Your task to perform on an android device: Open the settings Image 0: 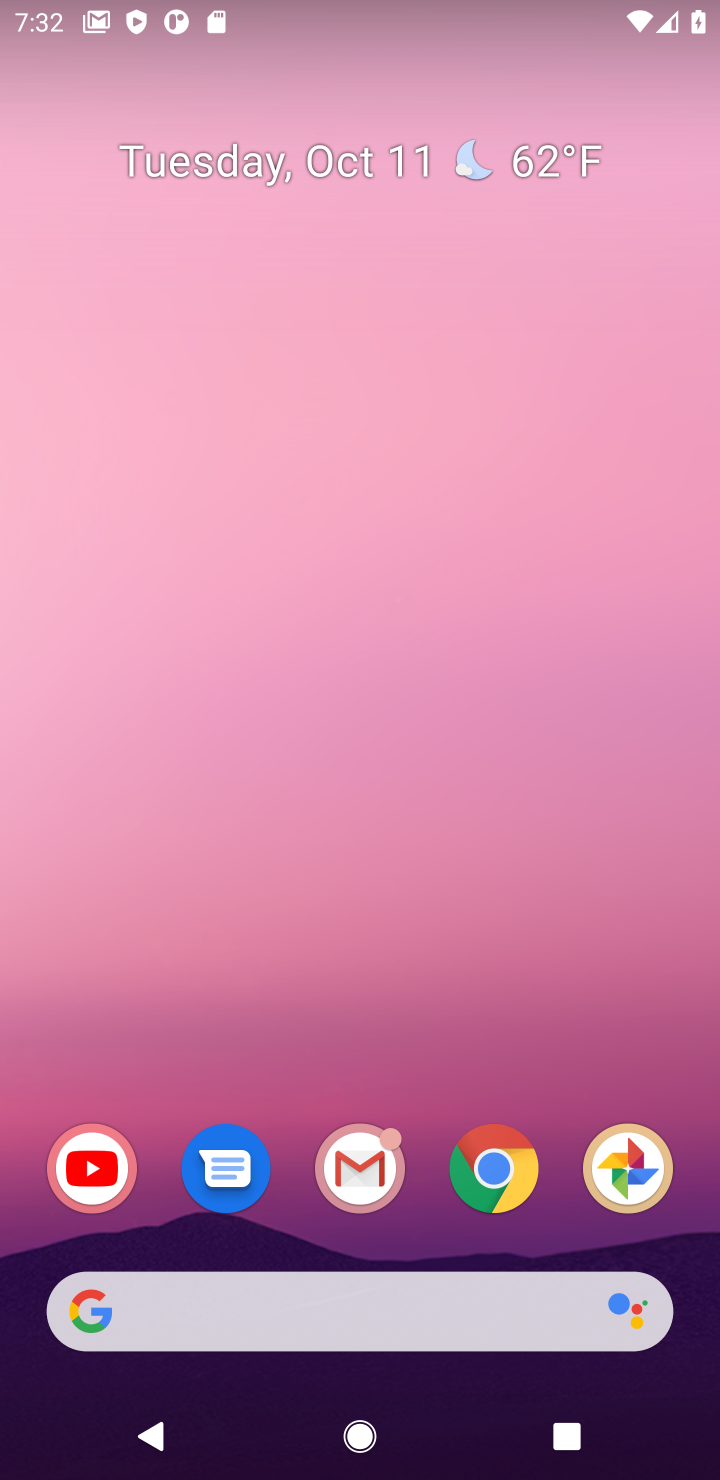
Step 0: click (503, 1173)
Your task to perform on an android device: Open the settings Image 1: 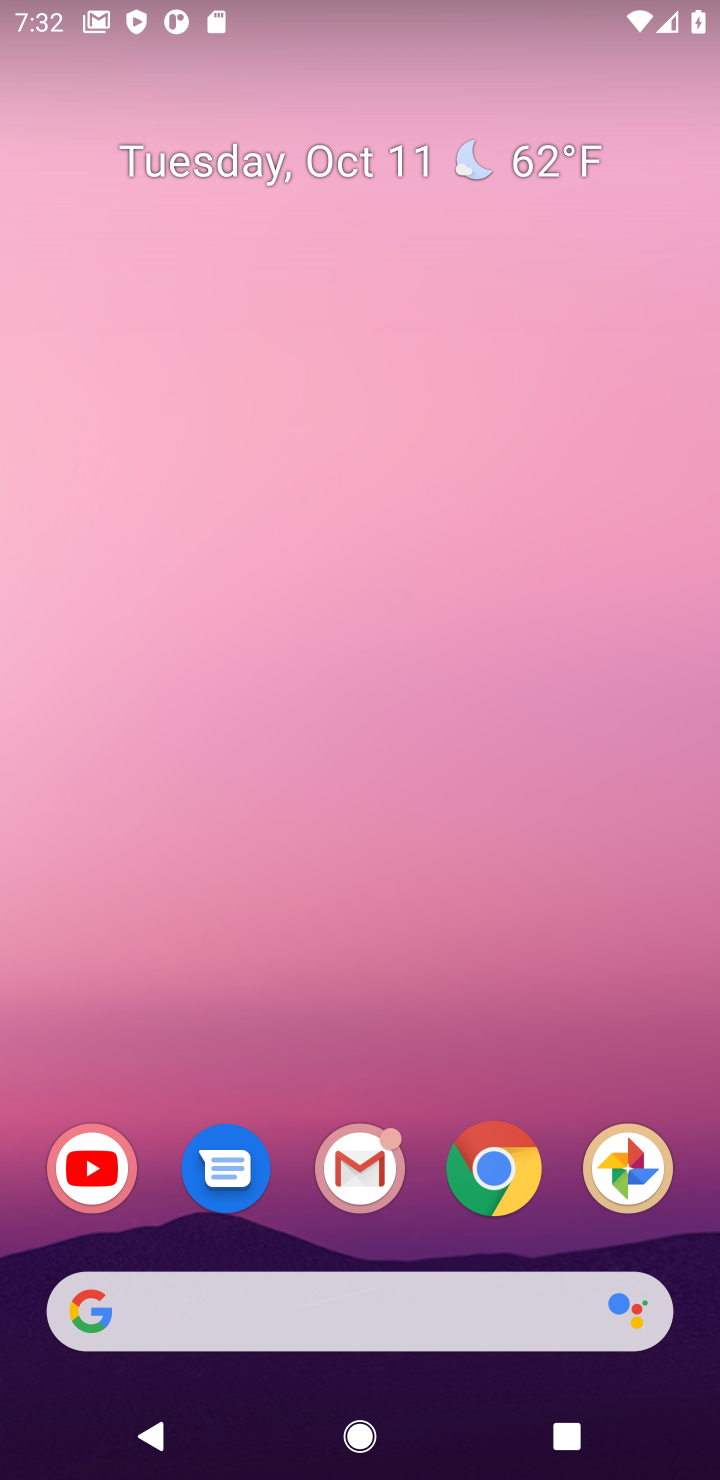
Step 1: drag from (423, 1031) to (438, 354)
Your task to perform on an android device: Open the settings Image 2: 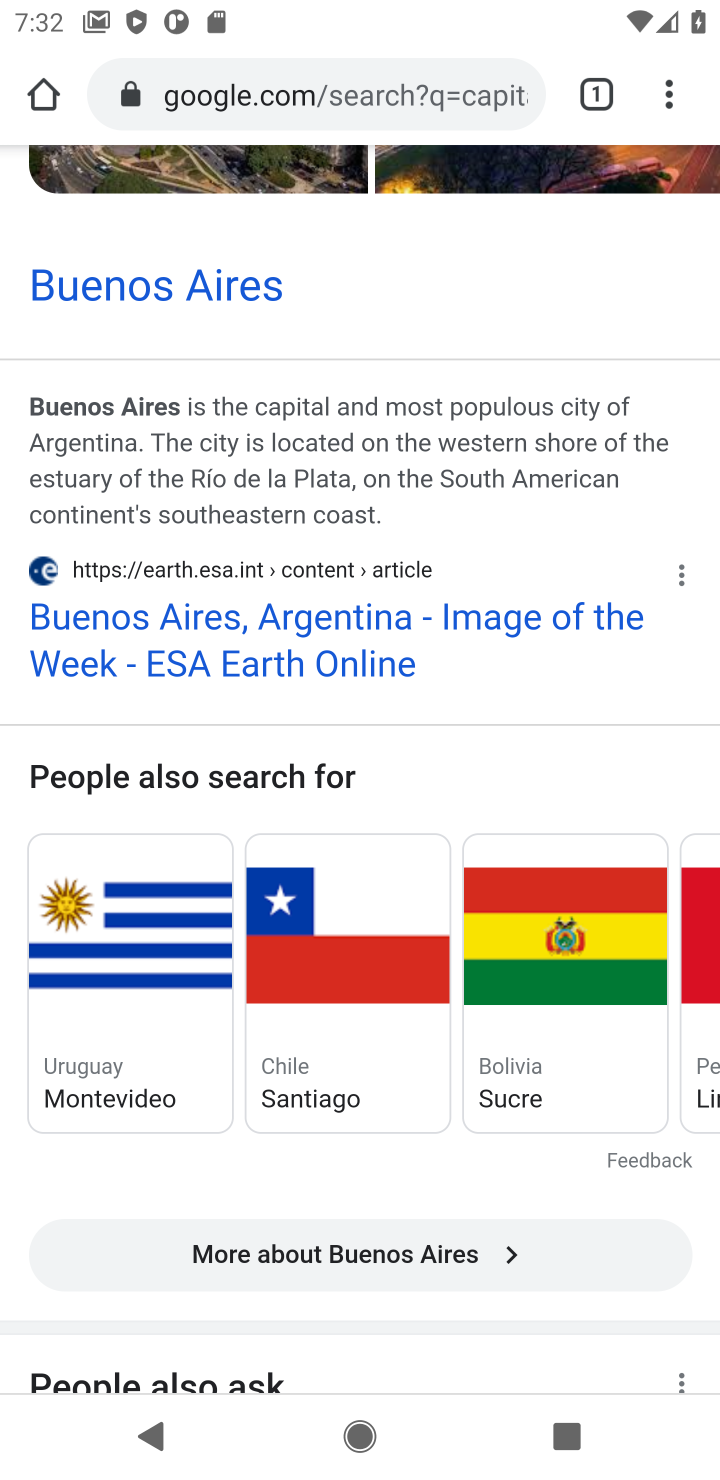
Step 2: press home button
Your task to perform on an android device: Open the settings Image 3: 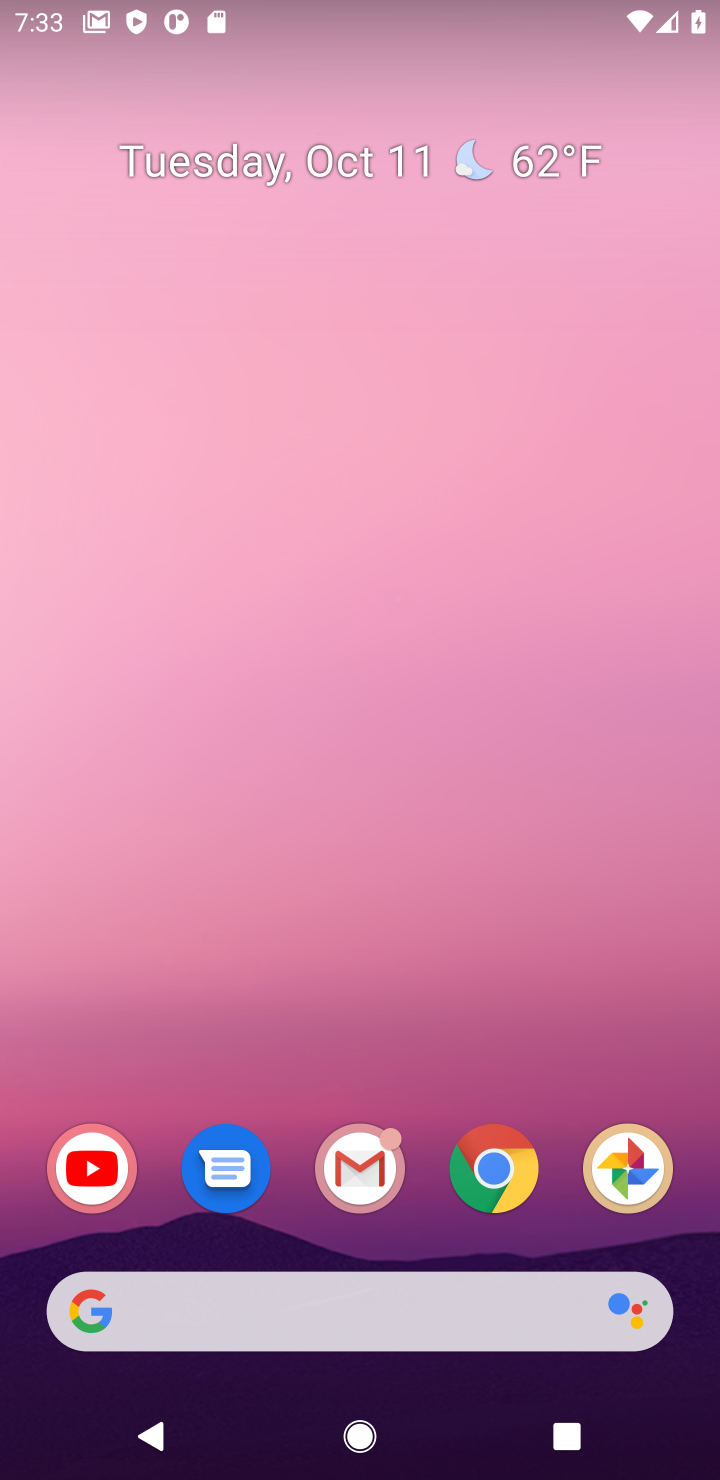
Step 3: drag from (331, 940) to (401, 450)
Your task to perform on an android device: Open the settings Image 4: 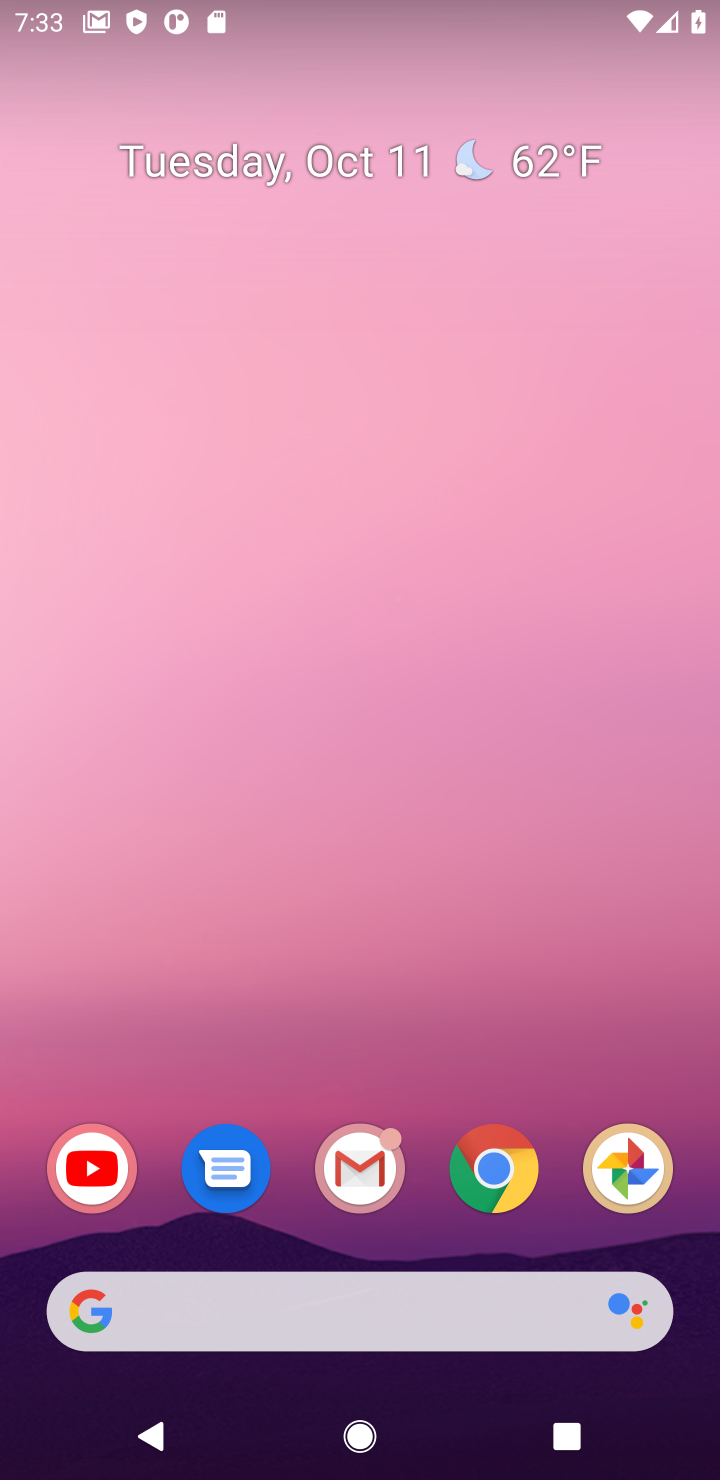
Step 4: drag from (286, 944) to (376, 294)
Your task to perform on an android device: Open the settings Image 5: 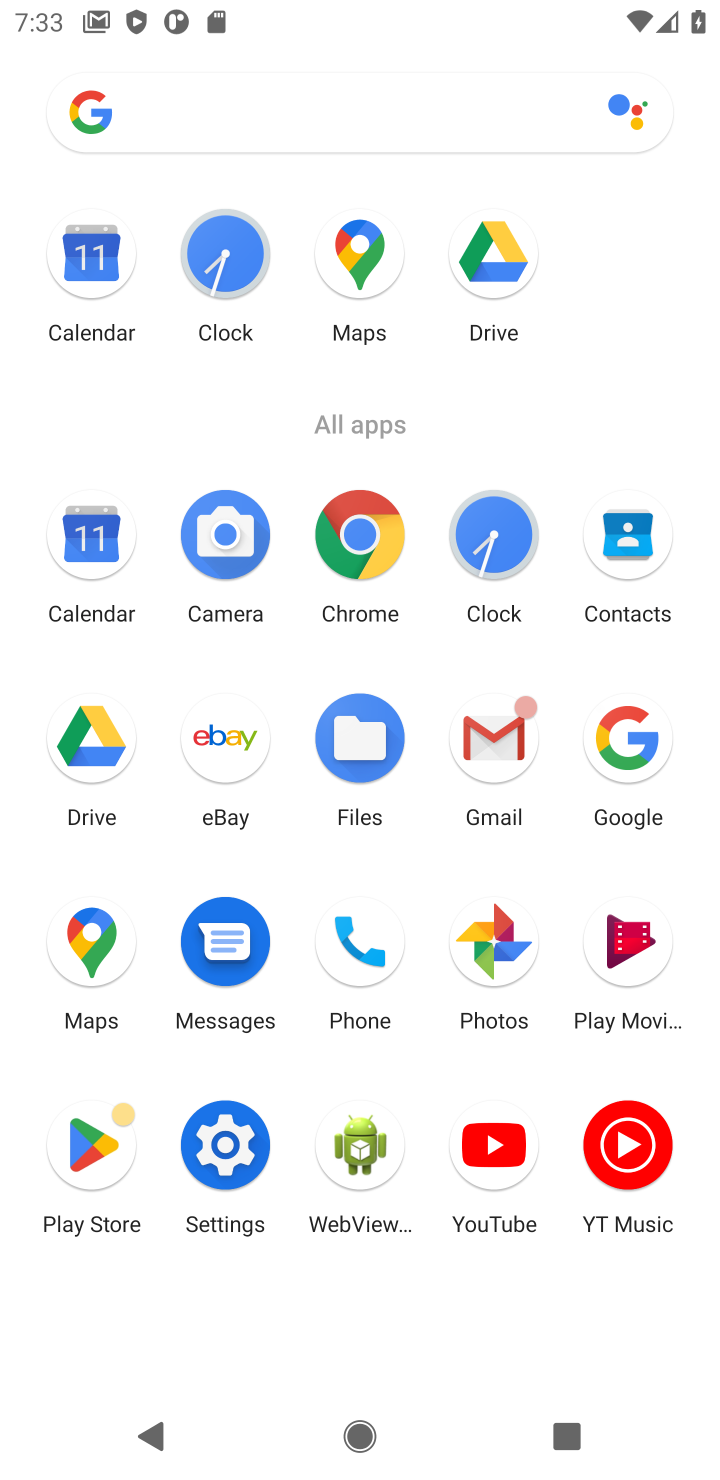
Step 5: click (209, 1158)
Your task to perform on an android device: Open the settings Image 6: 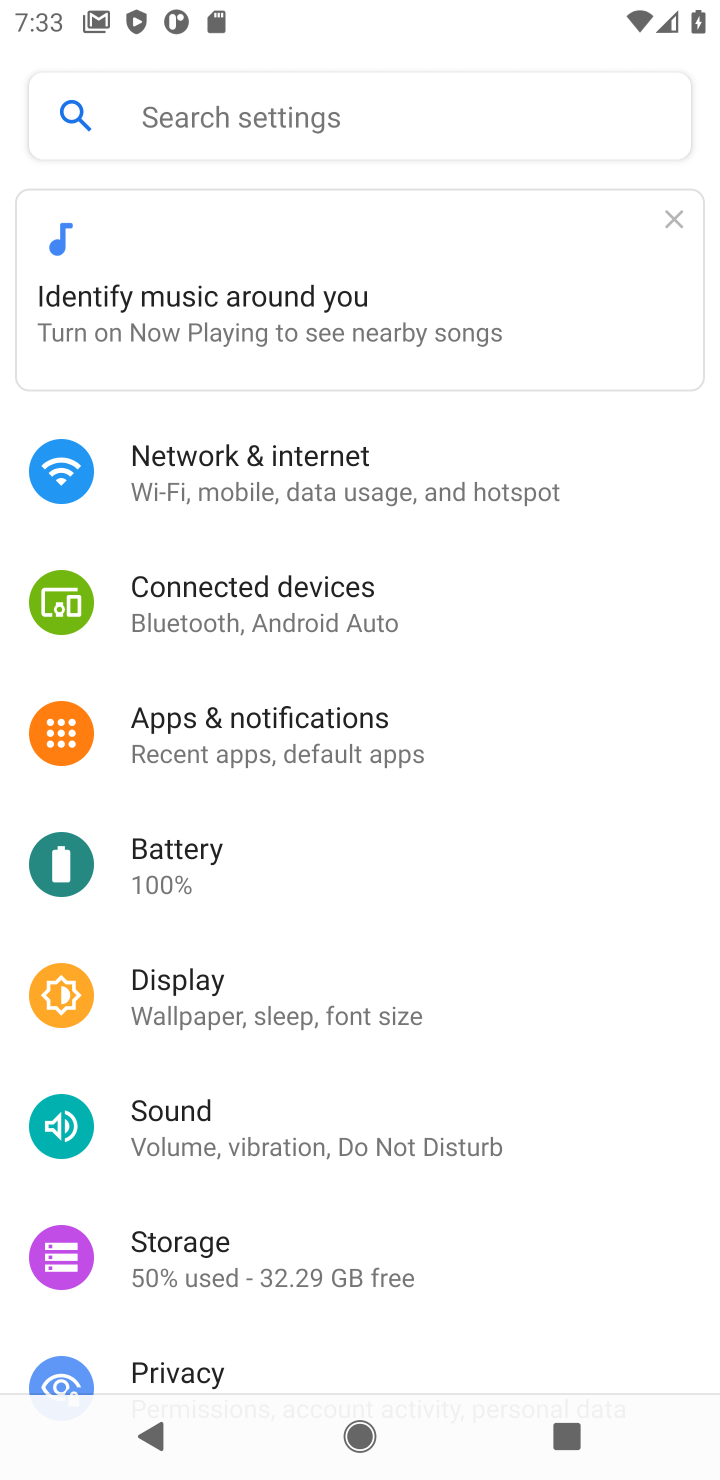
Step 6: task complete